Your task to perform on an android device: see sites visited before in the chrome app Image 0: 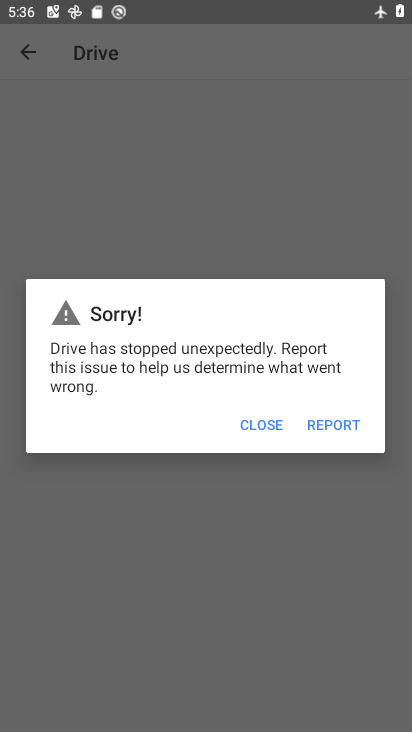
Step 0: press home button
Your task to perform on an android device: see sites visited before in the chrome app Image 1: 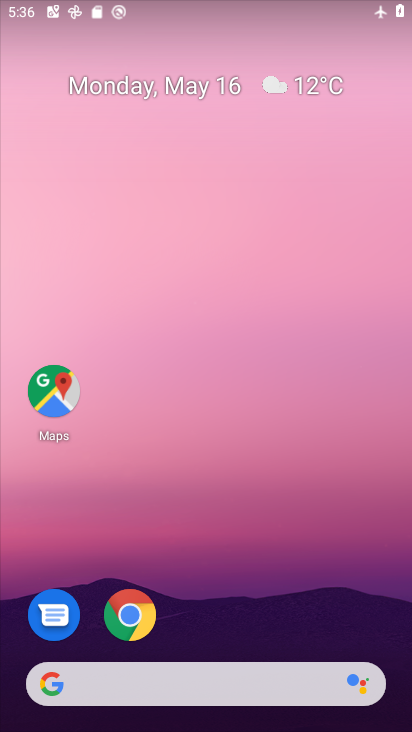
Step 1: drag from (230, 638) to (271, 185)
Your task to perform on an android device: see sites visited before in the chrome app Image 2: 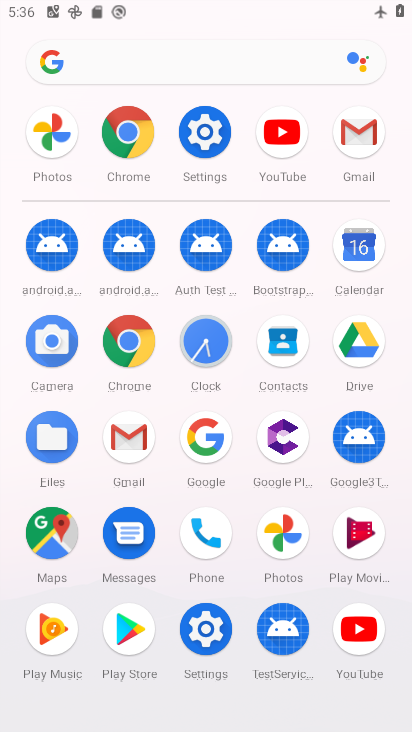
Step 2: press home button
Your task to perform on an android device: see sites visited before in the chrome app Image 3: 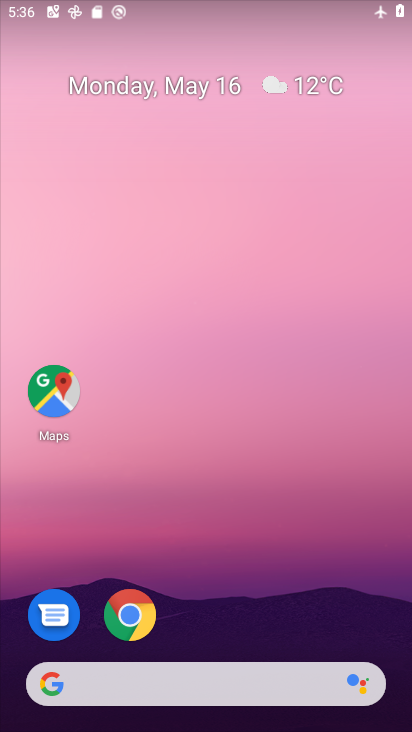
Step 3: drag from (222, 621) to (288, 267)
Your task to perform on an android device: see sites visited before in the chrome app Image 4: 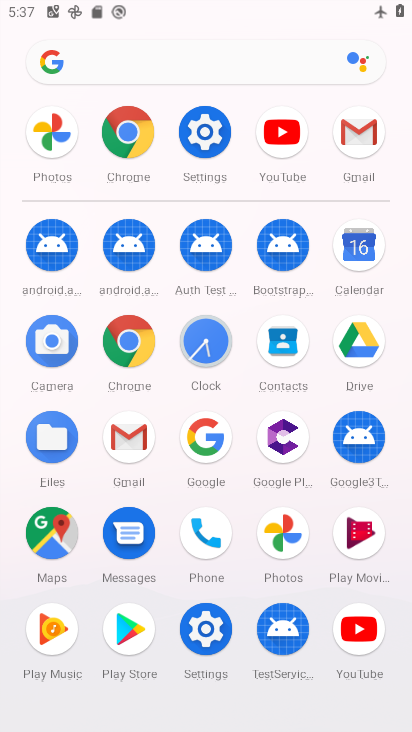
Step 4: click (118, 155)
Your task to perform on an android device: see sites visited before in the chrome app Image 5: 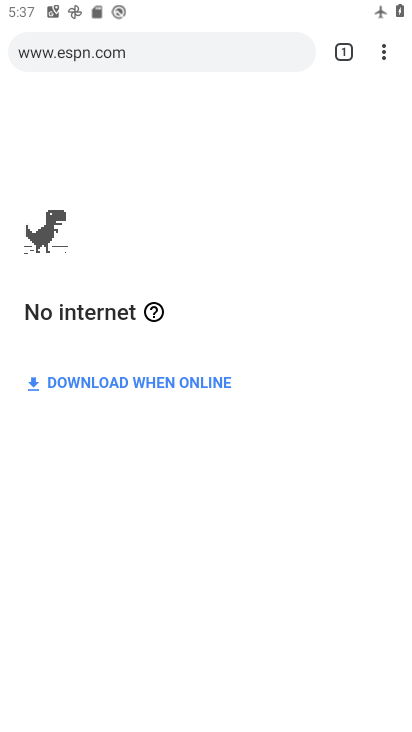
Step 5: click (383, 57)
Your task to perform on an android device: see sites visited before in the chrome app Image 6: 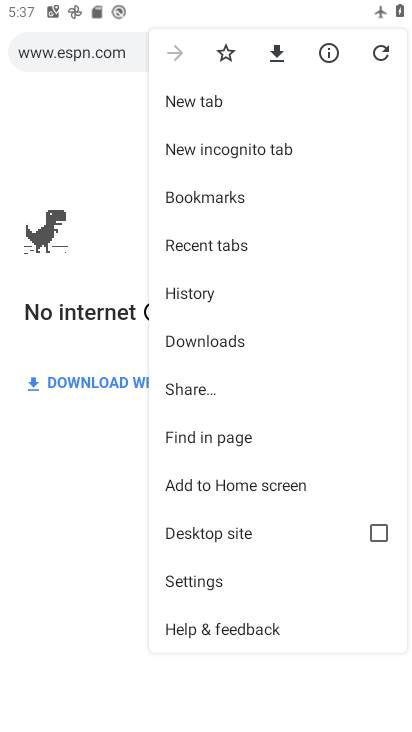
Step 6: click (190, 295)
Your task to perform on an android device: see sites visited before in the chrome app Image 7: 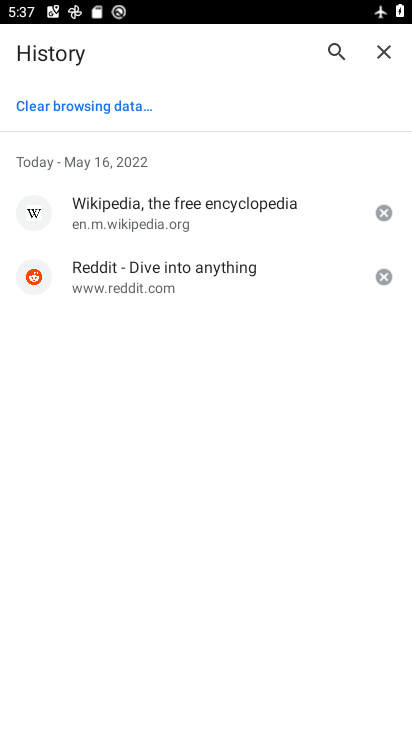
Step 7: task complete